Your task to perform on an android device: What is the news today? Image 0: 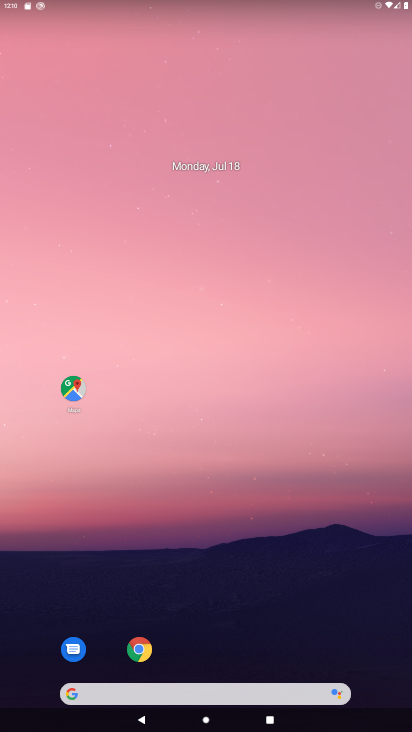
Step 0: click (127, 689)
Your task to perform on an android device: What is the news today? Image 1: 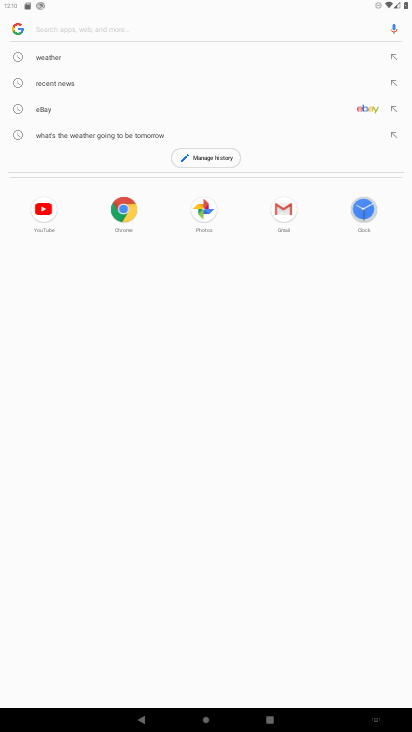
Step 1: click (10, 36)
Your task to perform on an android device: What is the news today? Image 2: 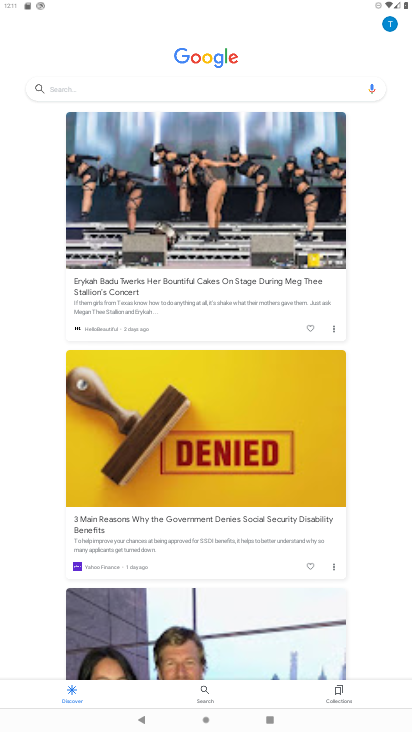
Step 2: task complete